Your task to perform on an android device: Open the phone app and click the voicemail tab. Image 0: 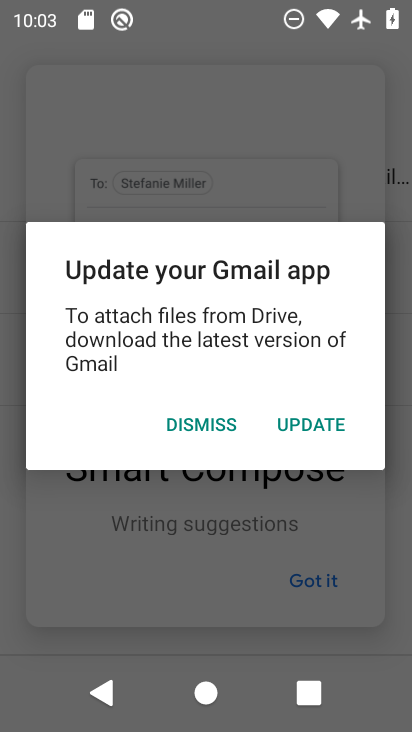
Step 0: press home button
Your task to perform on an android device: Open the phone app and click the voicemail tab. Image 1: 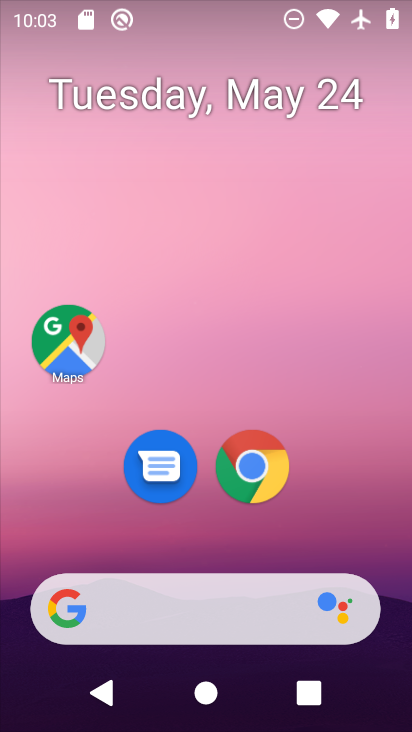
Step 1: drag from (186, 568) to (209, 114)
Your task to perform on an android device: Open the phone app and click the voicemail tab. Image 2: 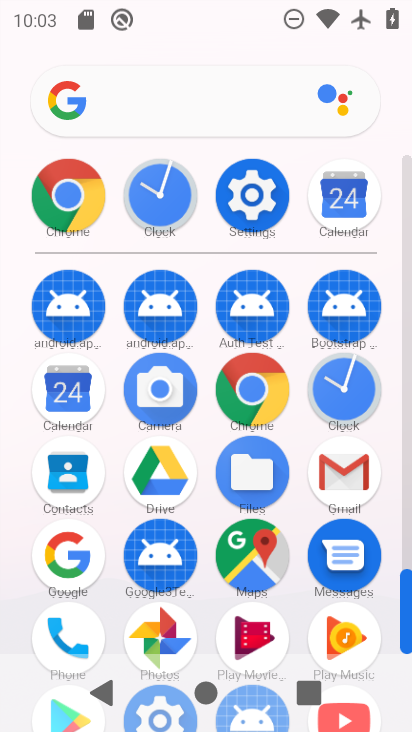
Step 2: drag from (204, 514) to (229, 141)
Your task to perform on an android device: Open the phone app and click the voicemail tab. Image 3: 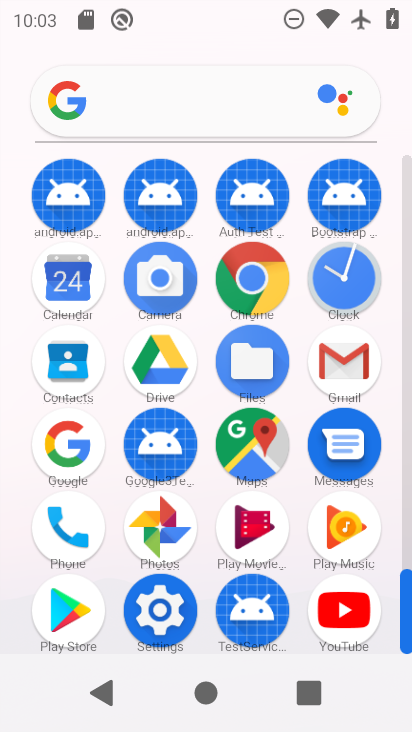
Step 3: click (65, 533)
Your task to perform on an android device: Open the phone app and click the voicemail tab. Image 4: 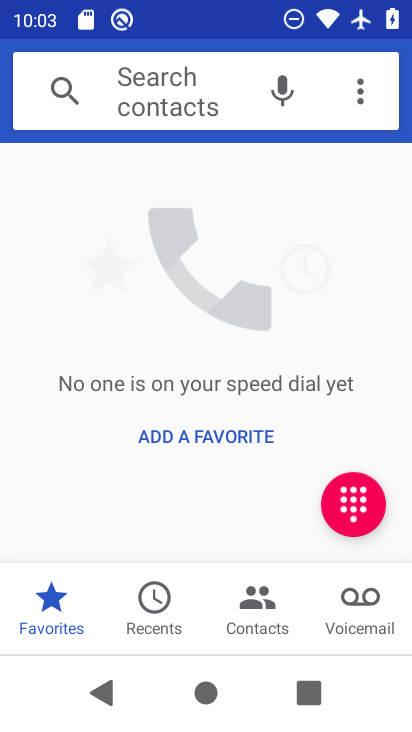
Step 4: click (374, 622)
Your task to perform on an android device: Open the phone app and click the voicemail tab. Image 5: 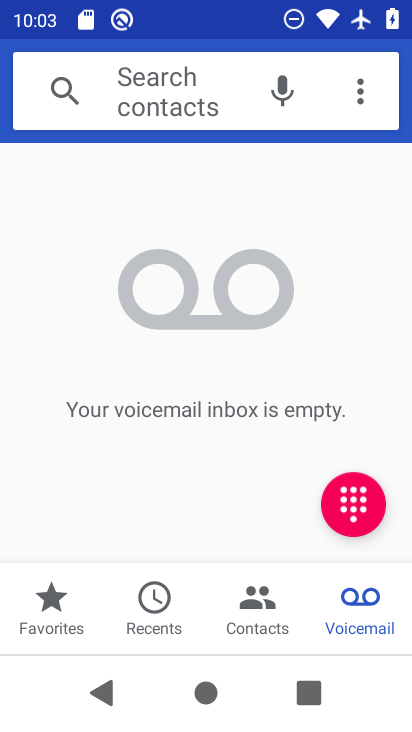
Step 5: task complete